Your task to perform on an android device: When is my next appointment? Image 0: 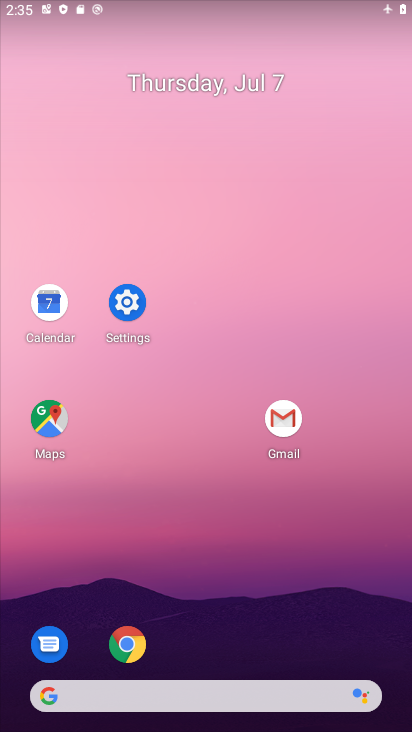
Step 0: click (203, 522)
Your task to perform on an android device: When is my next appointment? Image 1: 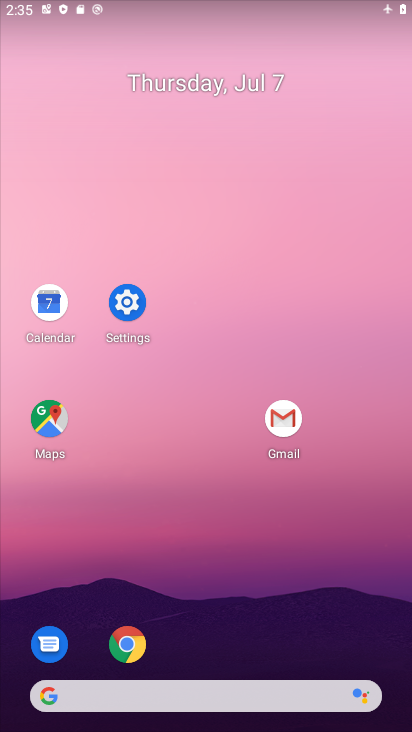
Step 1: click (45, 296)
Your task to perform on an android device: When is my next appointment? Image 2: 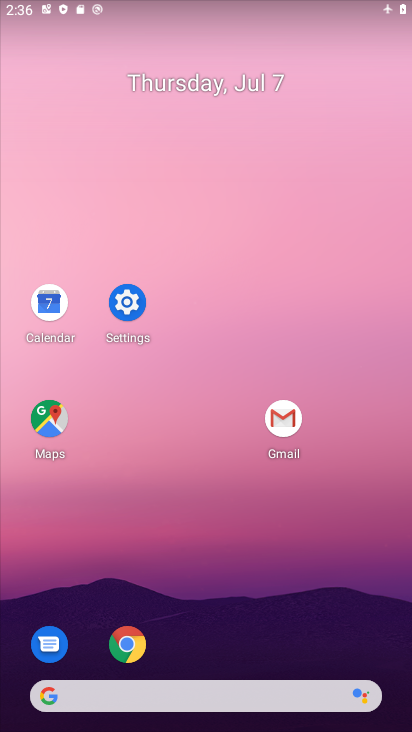
Step 2: click (45, 296)
Your task to perform on an android device: When is my next appointment? Image 3: 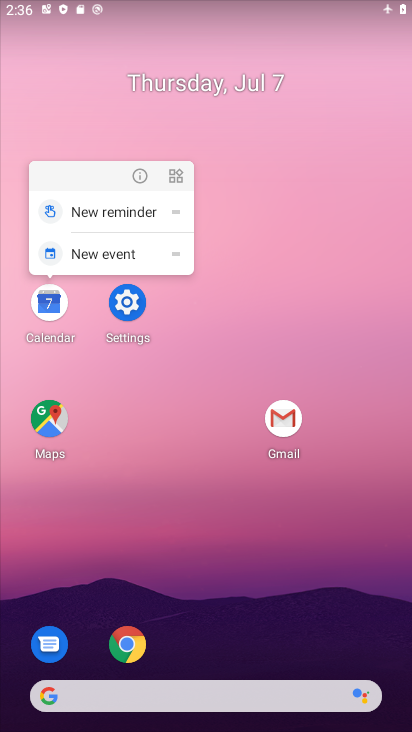
Step 3: click (55, 303)
Your task to perform on an android device: When is my next appointment? Image 4: 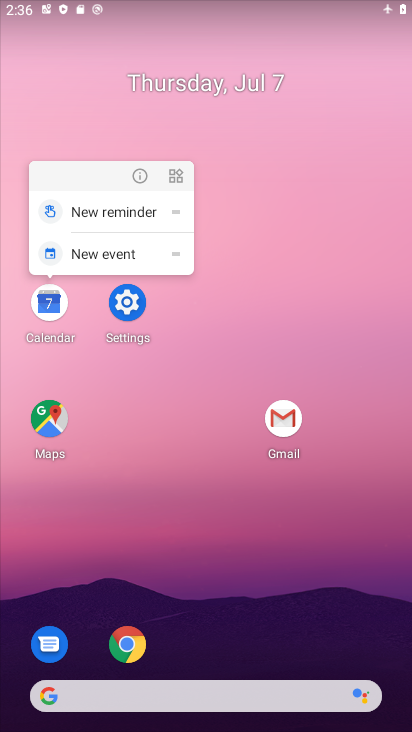
Step 4: click (55, 305)
Your task to perform on an android device: When is my next appointment? Image 5: 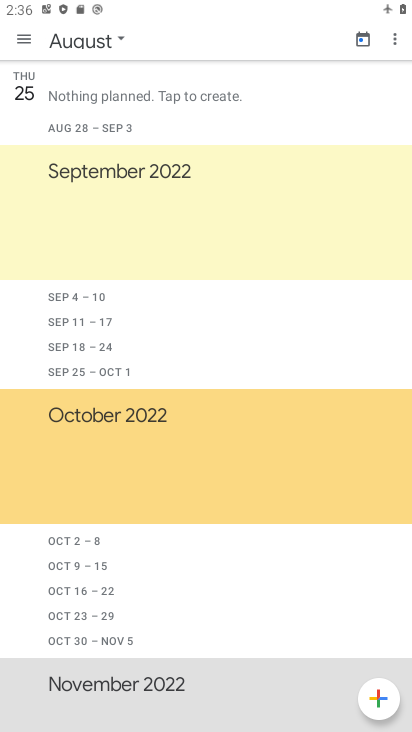
Step 5: click (124, 39)
Your task to perform on an android device: When is my next appointment? Image 6: 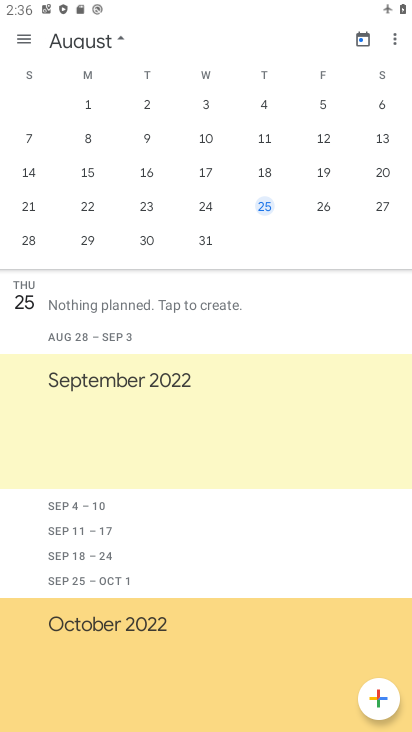
Step 6: drag from (60, 108) to (380, 104)
Your task to perform on an android device: When is my next appointment? Image 7: 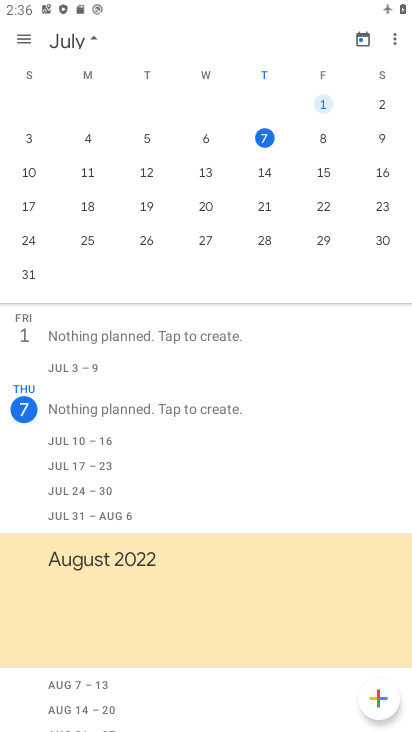
Step 7: click (18, 39)
Your task to perform on an android device: When is my next appointment? Image 8: 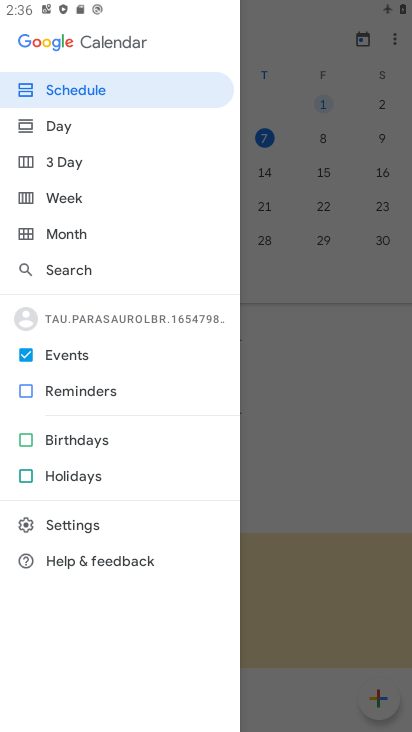
Step 8: click (94, 101)
Your task to perform on an android device: When is my next appointment? Image 9: 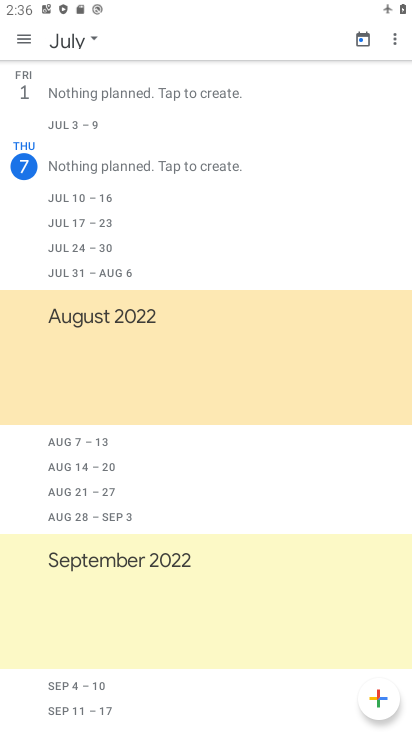
Step 9: task complete